Your task to perform on an android device: Set an alarm for 6am Image 0: 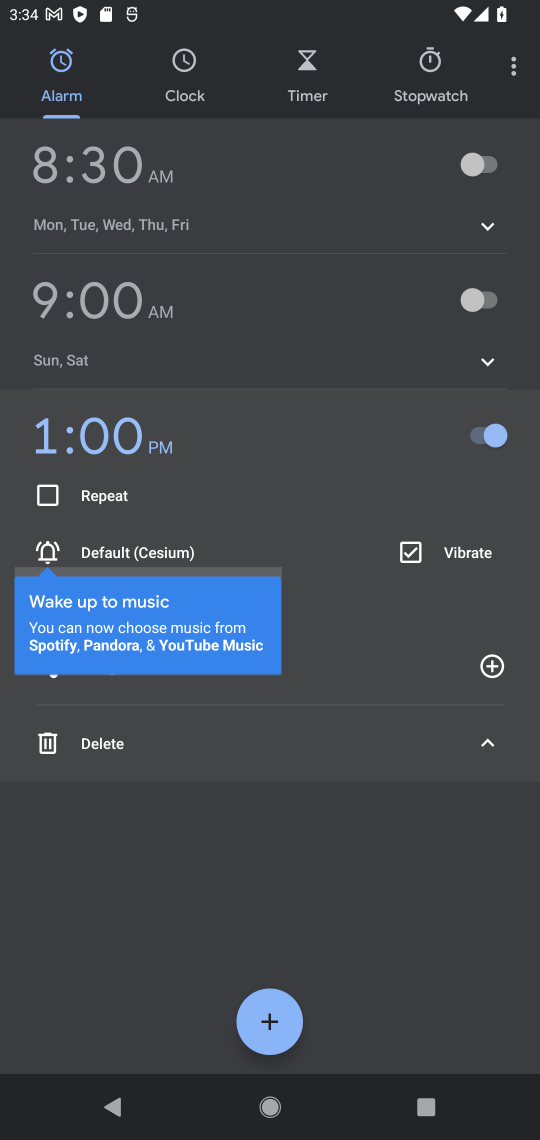
Step 0: click (291, 1011)
Your task to perform on an android device: Set an alarm for 6am Image 1: 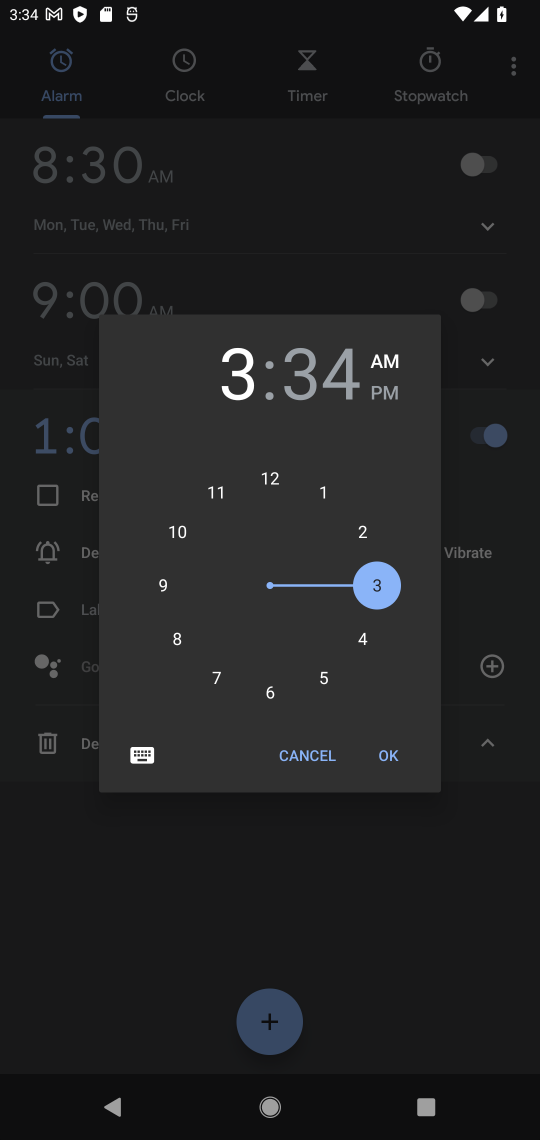
Step 1: click (273, 691)
Your task to perform on an android device: Set an alarm for 6am Image 2: 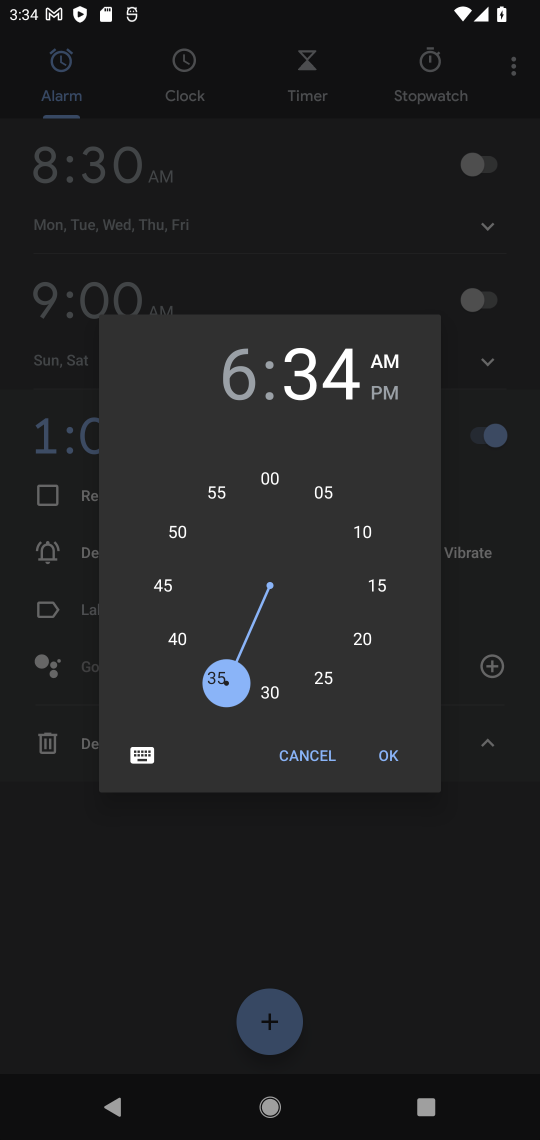
Step 2: click (272, 481)
Your task to perform on an android device: Set an alarm for 6am Image 3: 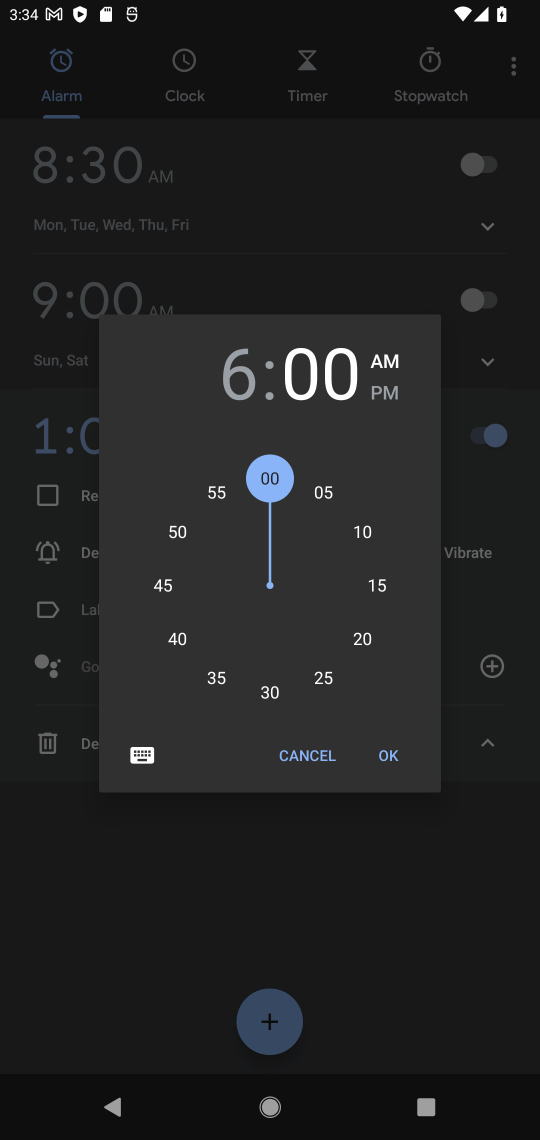
Step 3: click (388, 764)
Your task to perform on an android device: Set an alarm for 6am Image 4: 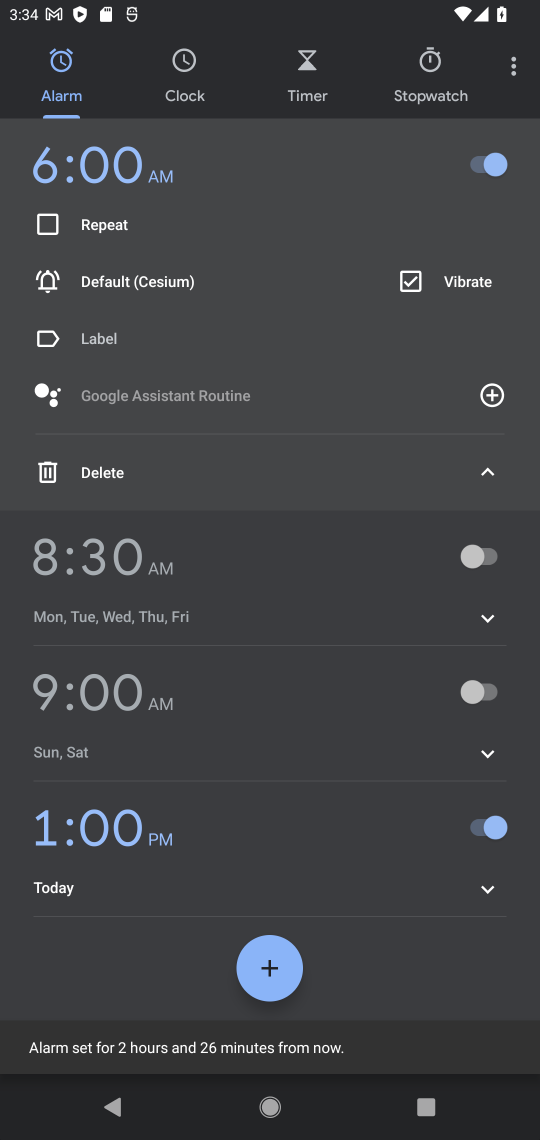
Step 4: task complete